Your task to perform on an android device: Toggle the flashlight Image 0: 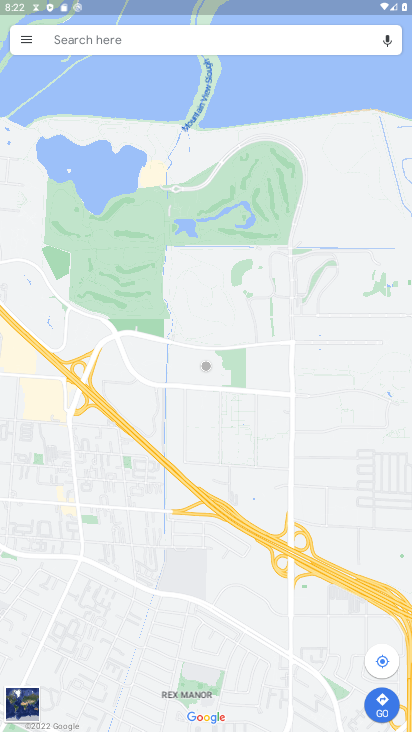
Step 0: press home button
Your task to perform on an android device: Toggle the flashlight Image 1: 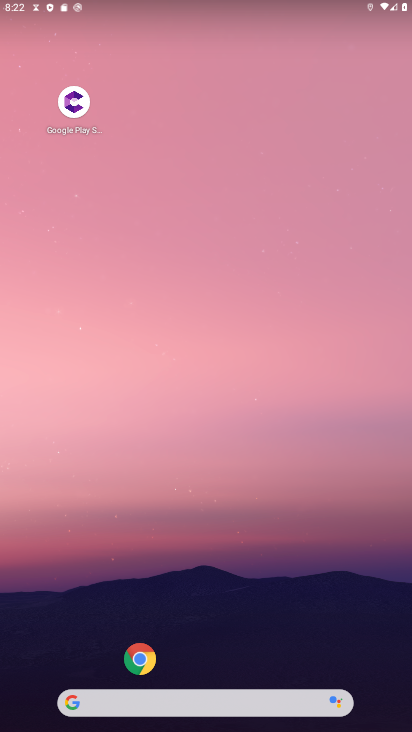
Step 1: drag from (124, 5) to (81, 458)
Your task to perform on an android device: Toggle the flashlight Image 2: 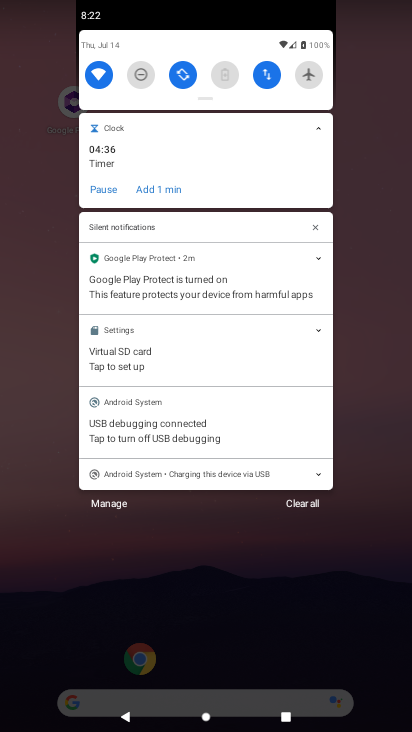
Step 2: drag from (264, 61) to (243, 524)
Your task to perform on an android device: Toggle the flashlight Image 3: 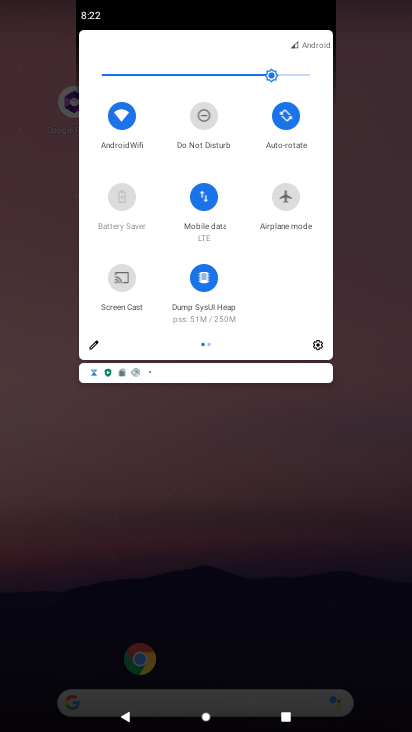
Step 3: drag from (301, 188) to (5, 585)
Your task to perform on an android device: Toggle the flashlight Image 4: 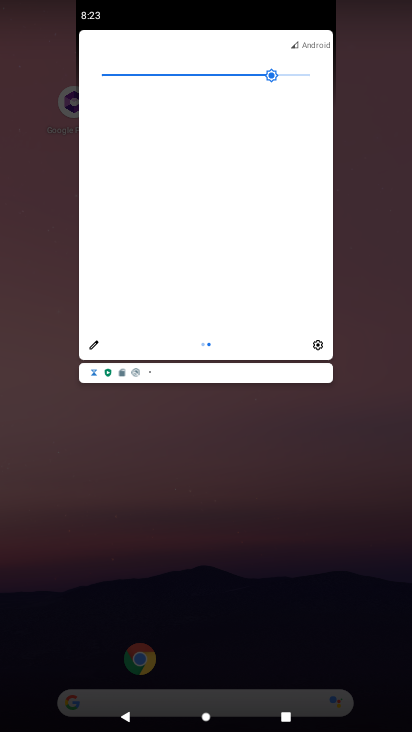
Step 4: click (86, 339)
Your task to perform on an android device: Toggle the flashlight Image 5: 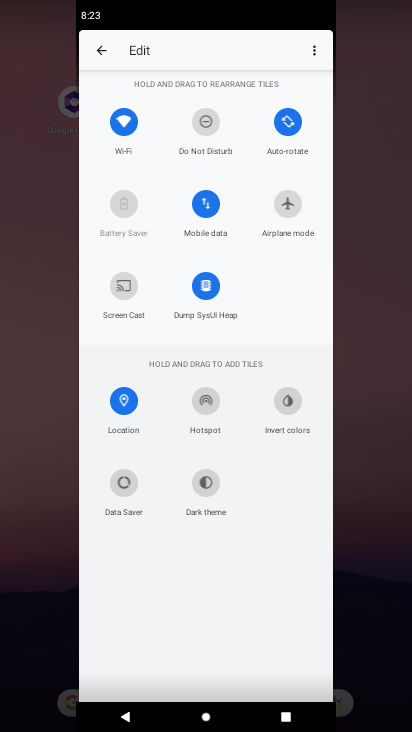
Step 5: task complete